Your task to perform on an android device: change text size in settings app Image 0: 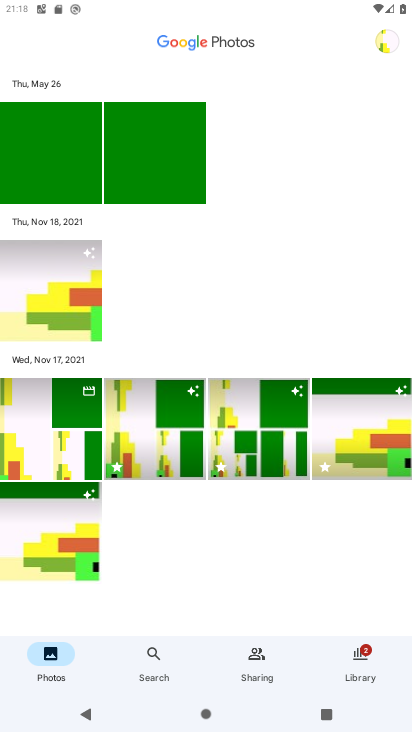
Step 0: press home button
Your task to perform on an android device: change text size in settings app Image 1: 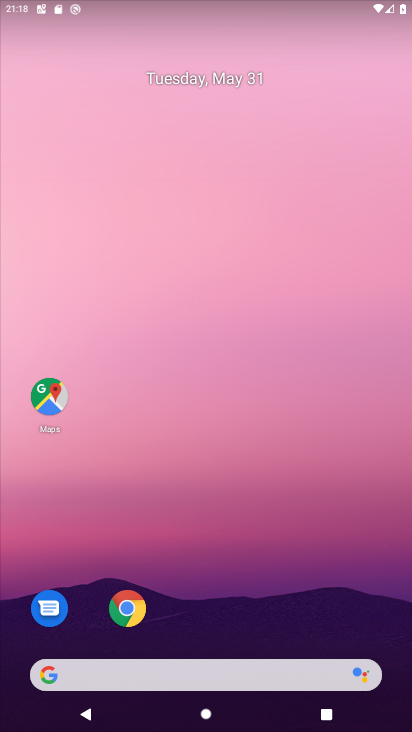
Step 1: drag from (302, 599) to (251, 164)
Your task to perform on an android device: change text size in settings app Image 2: 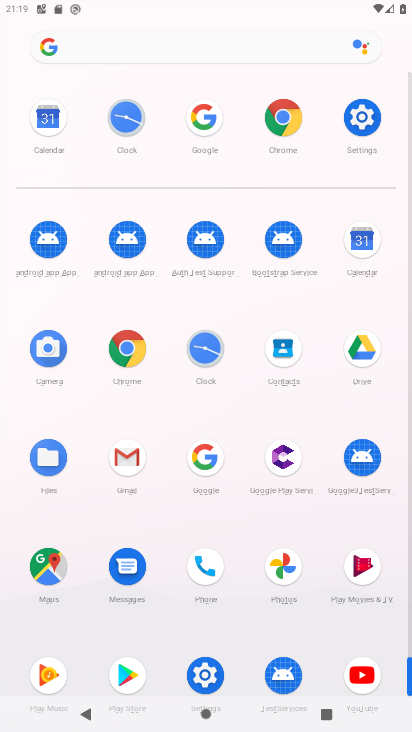
Step 2: click (364, 117)
Your task to perform on an android device: change text size in settings app Image 3: 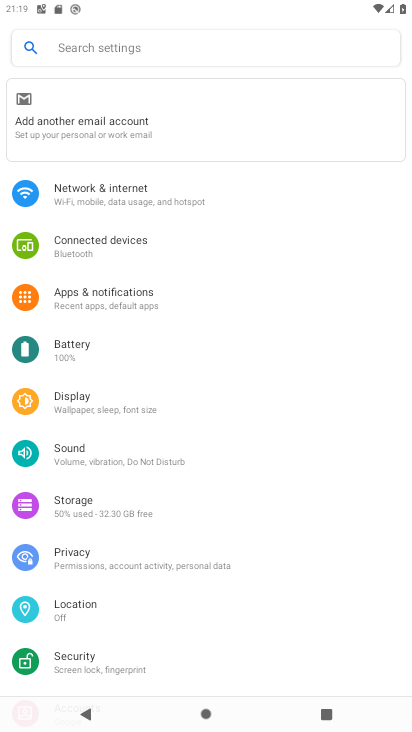
Step 3: drag from (121, 478) to (203, 384)
Your task to perform on an android device: change text size in settings app Image 4: 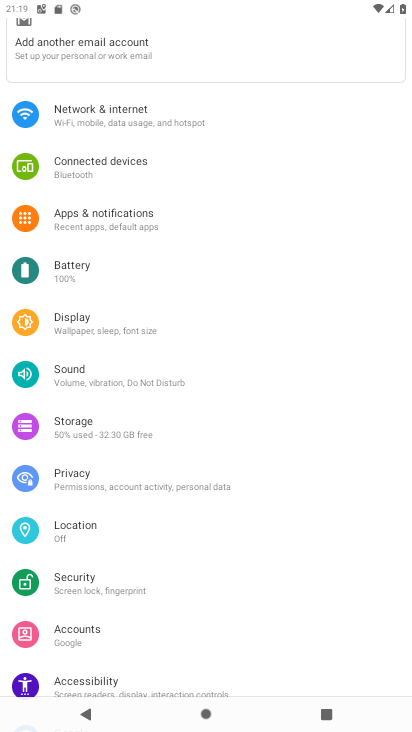
Step 4: drag from (121, 505) to (201, 414)
Your task to perform on an android device: change text size in settings app Image 5: 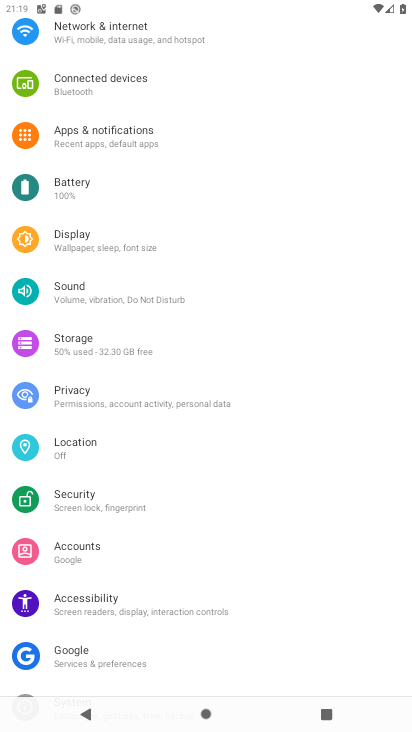
Step 5: click (107, 598)
Your task to perform on an android device: change text size in settings app Image 6: 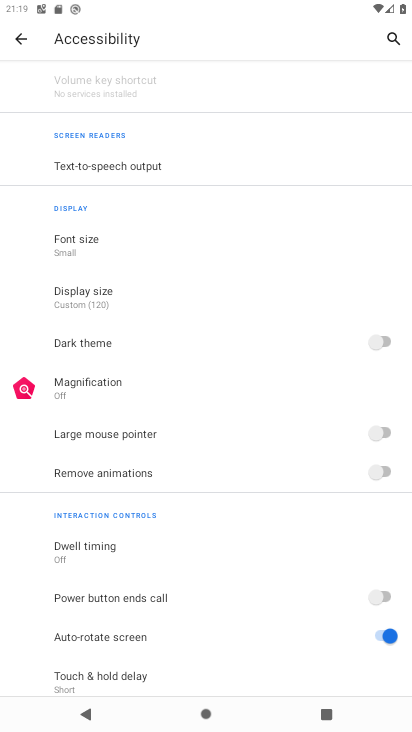
Step 6: click (88, 241)
Your task to perform on an android device: change text size in settings app Image 7: 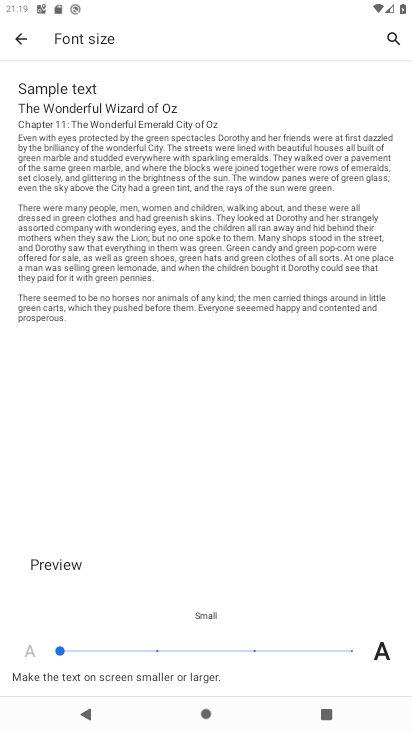
Step 7: click (252, 652)
Your task to perform on an android device: change text size in settings app Image 8: 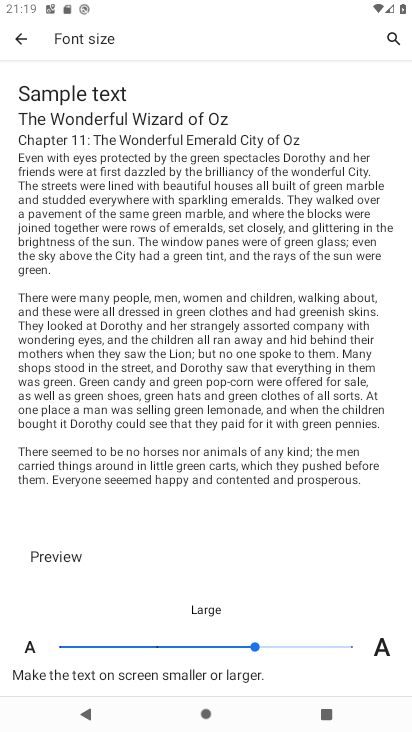
Step 8: task complete